Your task to perform on an android device: turn on priority inbox in the gmail app Image 0: 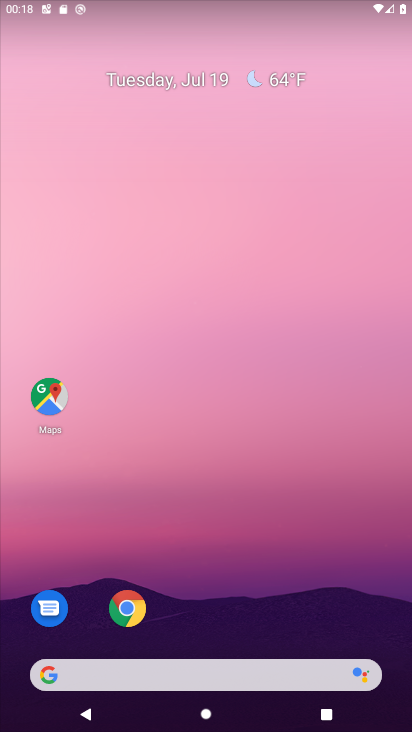
Step 0: drag from (221, 594) to (271, 11)
Your task to perform on an android device: turn on priority inbox in the gmail app Image 1: 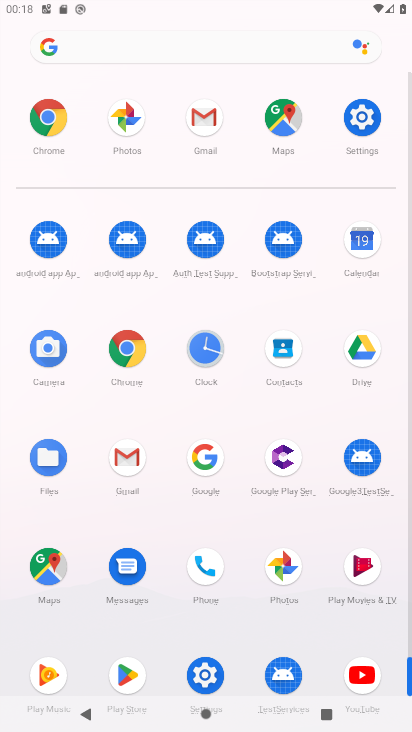
Step 1: click (135, 465)
Your task to perform on an android device: turn on priority inbox in the gmail app Image 2: 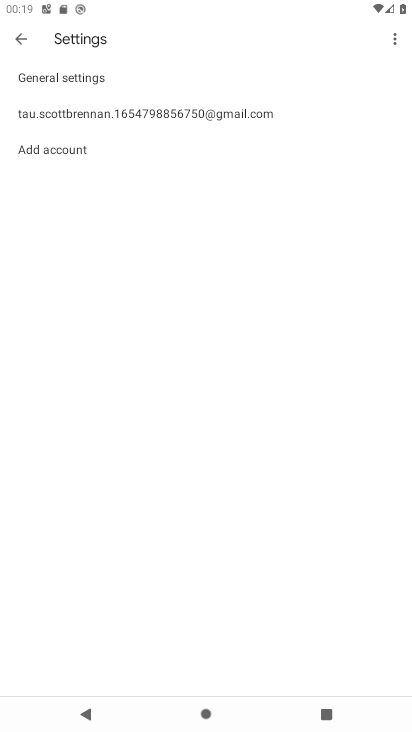
Step 2: press back button
Your task to perform on an android device: turn on priority inbox in the gmail app Image 3: 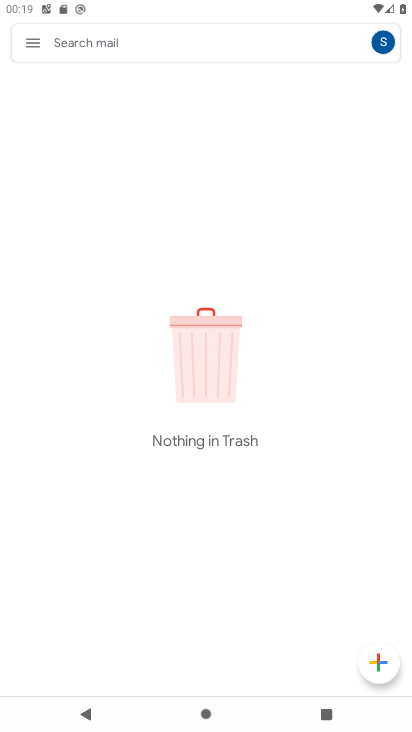
Step 3: click (37, 48)
Your task to perform on an android device: turn on priority inbox in the gmail app Image 4: 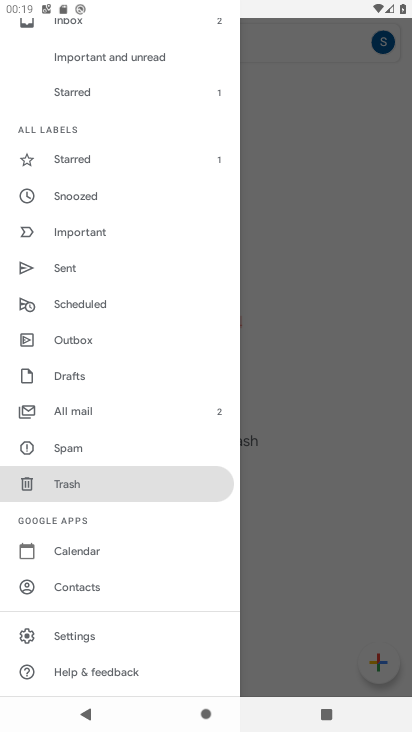
Step 4: click (106, 635)
Your task to perform on an android device: turn on priority inbox in the gmail app Image 5: 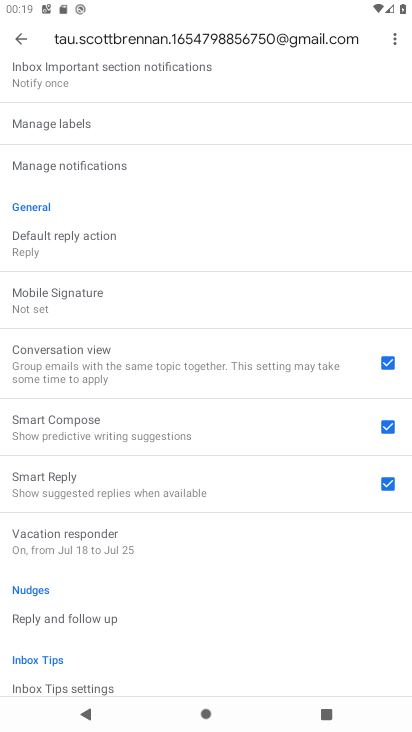
Step 5: task complete